Your task to perform on an android device: check out phone information Image 0: 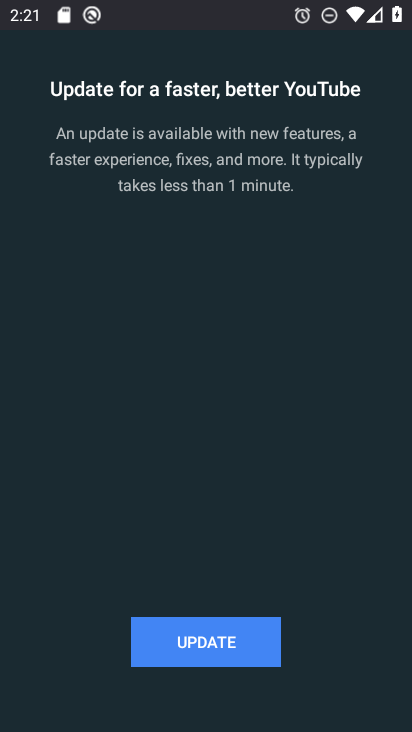
Step 0: press home button
Your task to perform on an android device: check out phone information Image 1: 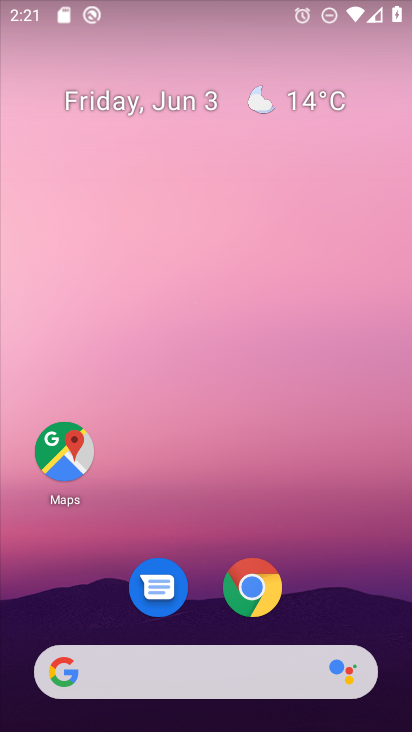
Step 1: drag from (320, 627) to (326, 20)
Your task to perform on an android device: check out phone information Image 2: 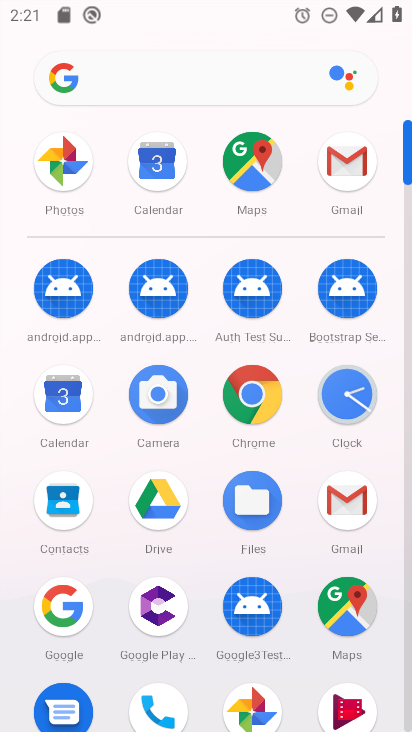
Step 2: drag from (298, 622) to (286, 117)
Your task to perform on an android device: check out phone information Image 3: 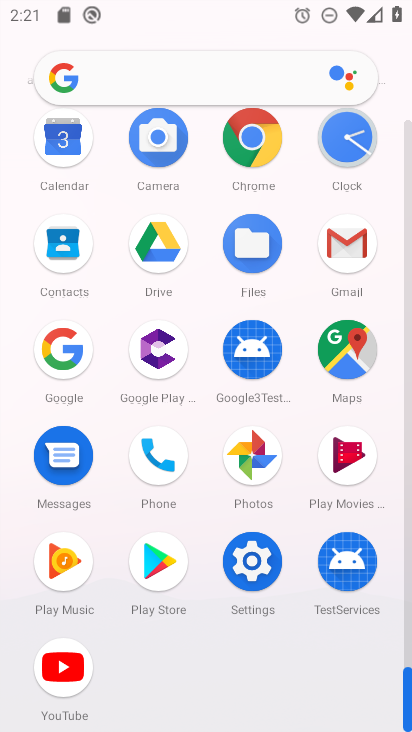
Step 3: click (258, 545)
Your task to perform on an android device: check out phone information Image 4: 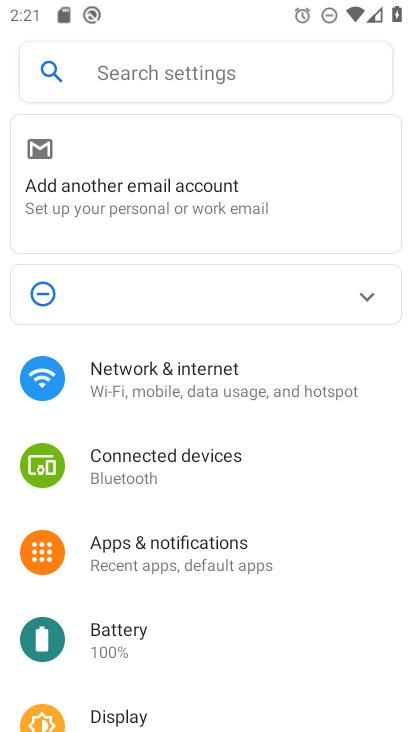
Step 4: drag from (65, 562) to (125, 49)
Your task to perform on an android device: check out phone information Image 5: 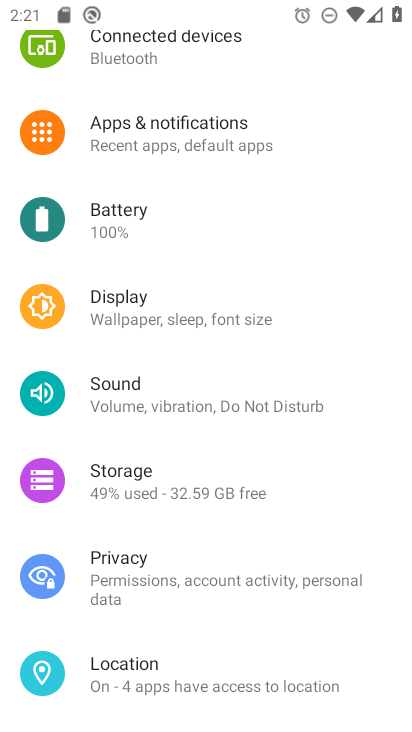
Step 5: drag from (191, 564) to (229, 17)
Your task to perform on an android device: check out phone information Image 6: 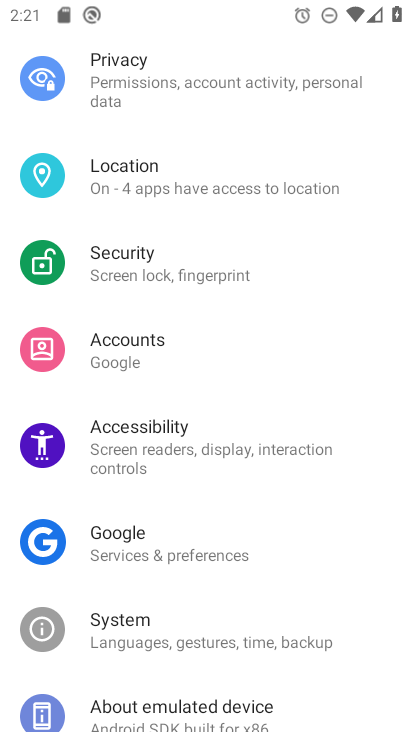
Step 6: click (181, 686)
Your task to perform on an android device: check out phone information Image 7: 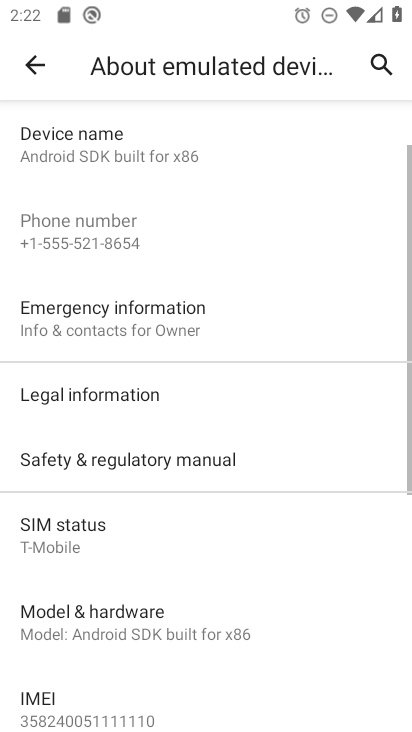
Step 7: task complete